Your task to perform on an android device: move a message to another label in the gmail app Image 0: 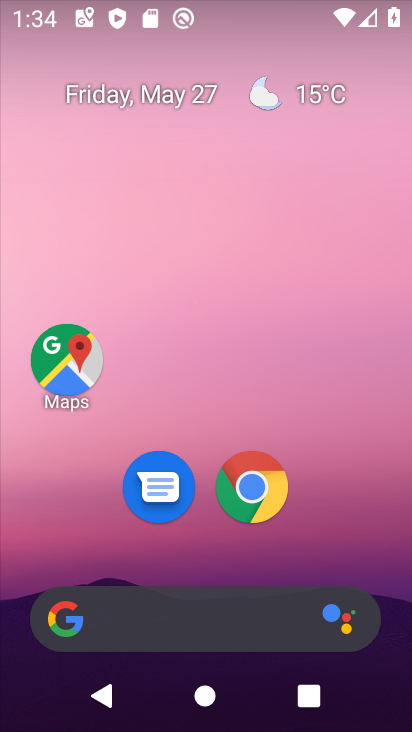
Step 0: drag from (185, 546) to (299, 2)
Your task to perform on an android device: move a message to another label in the gmail app Image 1: 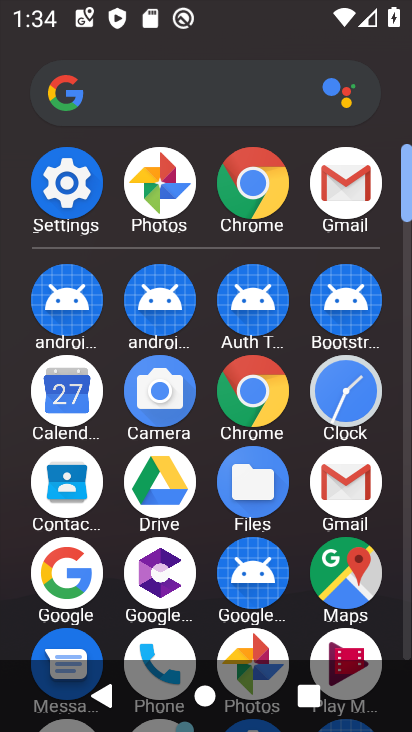
Step 1: click (337, 170)
Your task to perform on an android device: move a message to another label in the gmail app Image 2: 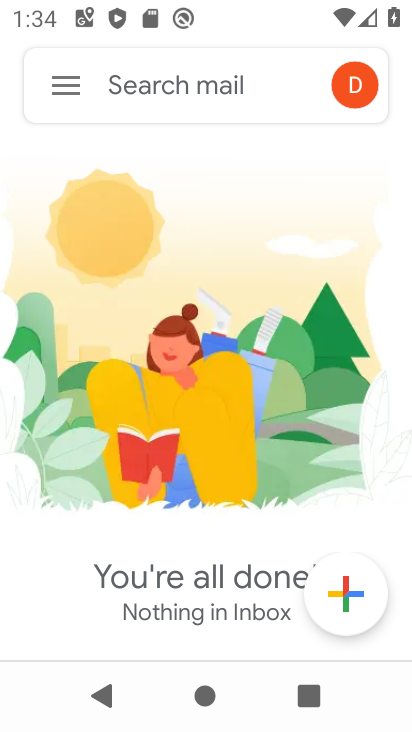
Step 2: task complete